Your task to perform on an android device: Open settings Image 0: 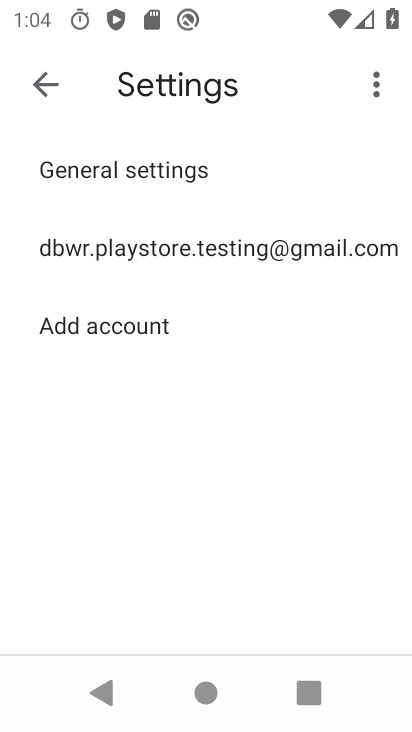
Step 0: press home button
Your task to perform on an android device: Open settings Image 1: 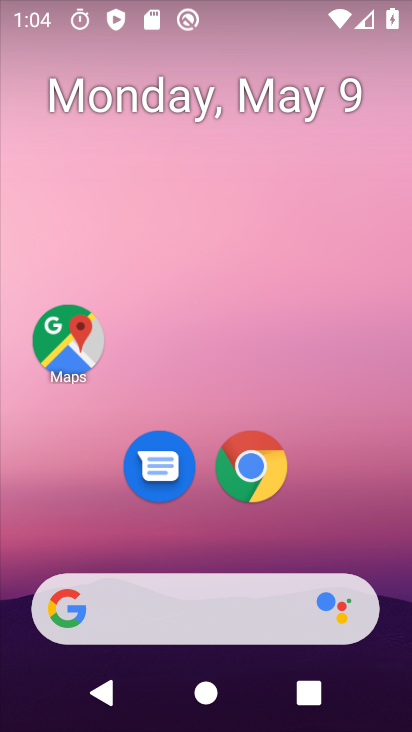
Step 1: drag from (272, 612) to (270, 191)
Your task to perform on an android device: Open settings Image 2: 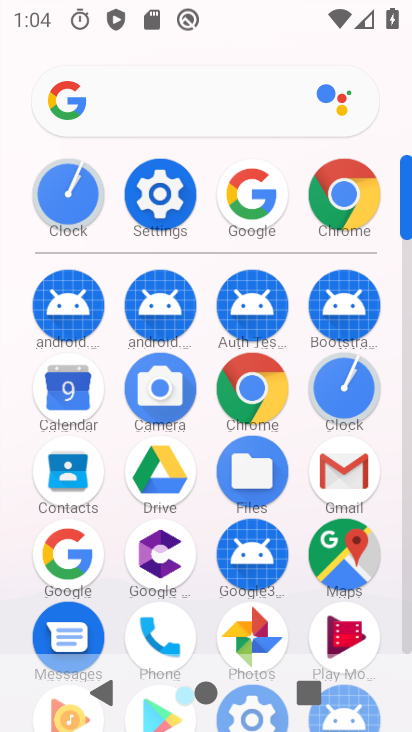
Step 2: click (180, 216)
Your task to perform on an android device: Open settings Image 3: 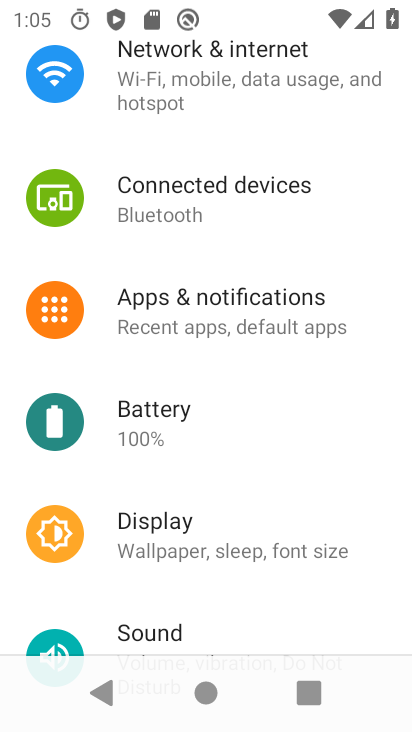
Step 3: task complete